Your task to perform on an android device: turn on wifi Image 0: 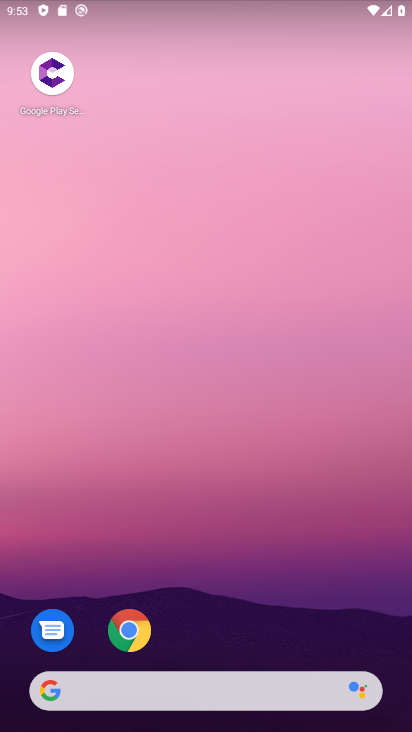
Step 0: drag from (243, 224) to (272, 446)
Your task to perform on an android device: turn on wifi Image 1: 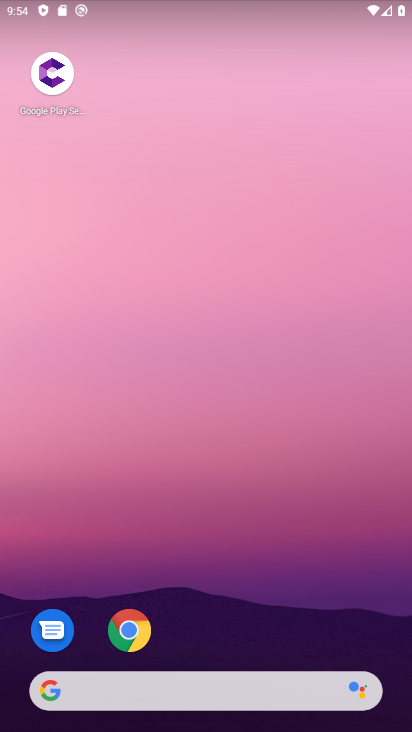
Step 1: task complete